Your task to perform on an android device: Open Google Maps Image 0: 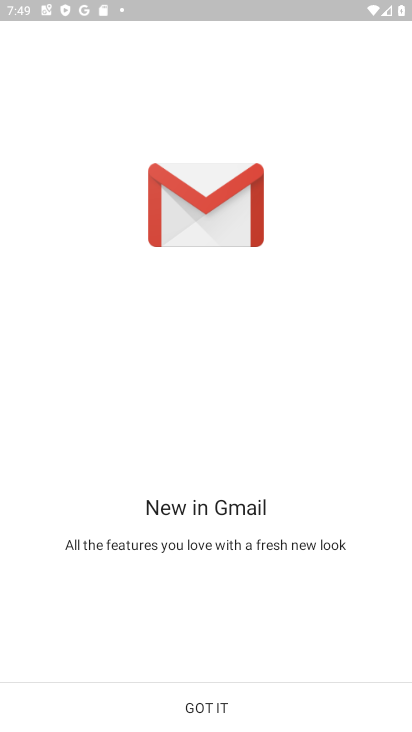
Step 0: press home button
Your task to perform on an android device: Open Google Maps Image 1: 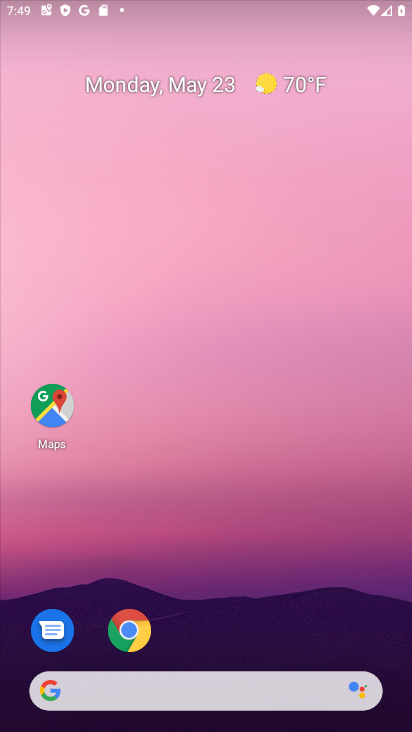
Step 1: drag from (252, 665) to (170, 104)
Your task to perform on an android device: Open Google Maps Image 2: 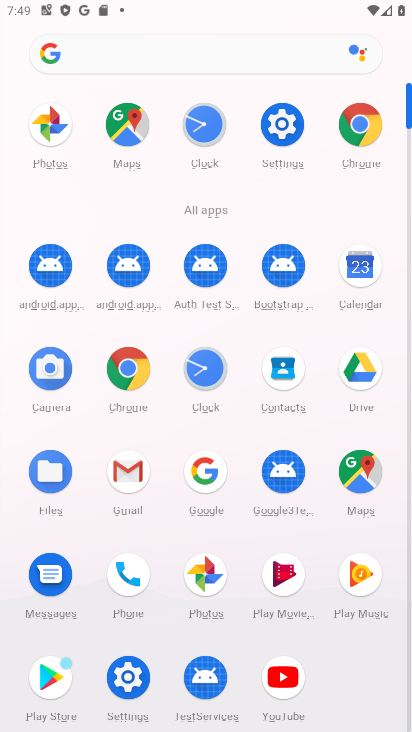
Step 2: click (130, 123)
Your task to perform on an android device: Open Google Maps Image 3: 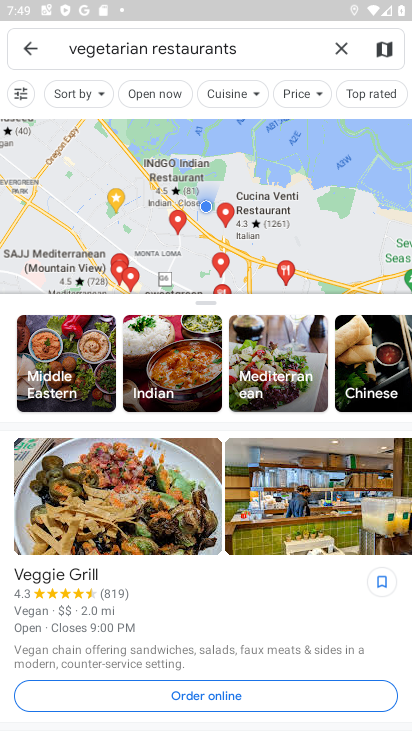
Step 3: task complete